Your task to perform on an android device: turn off priority inbox in the gmail app Image 0: 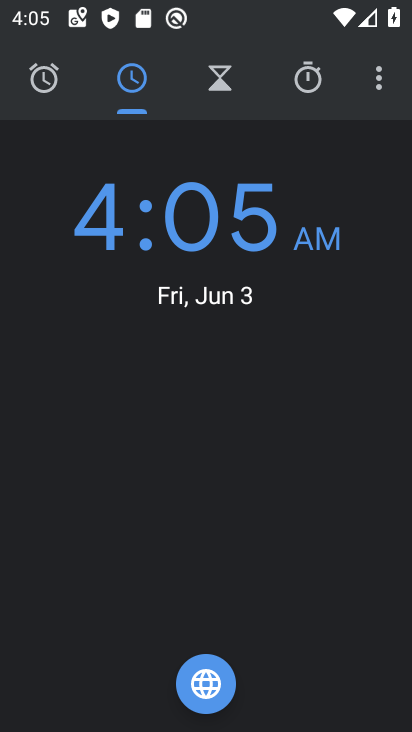
Step 0: press home button
Your task to perform on an android device: turn off priority inbox in the gmail app Image 1: 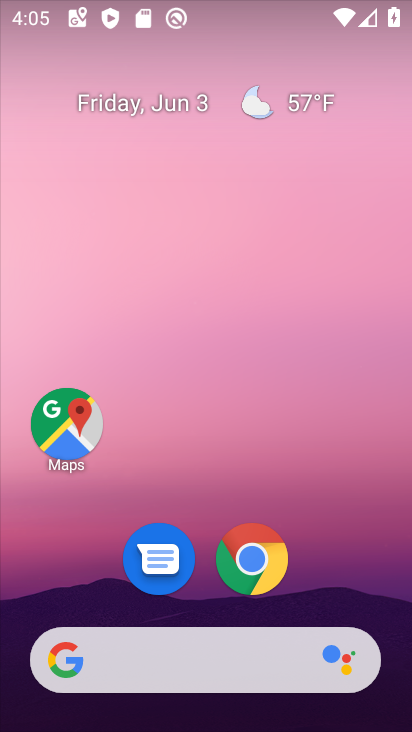
Step 1: drag from (313, 592) to (263, 95)
Your task to perform on an android device: turn off priority inbox in the gmail app Image 2: 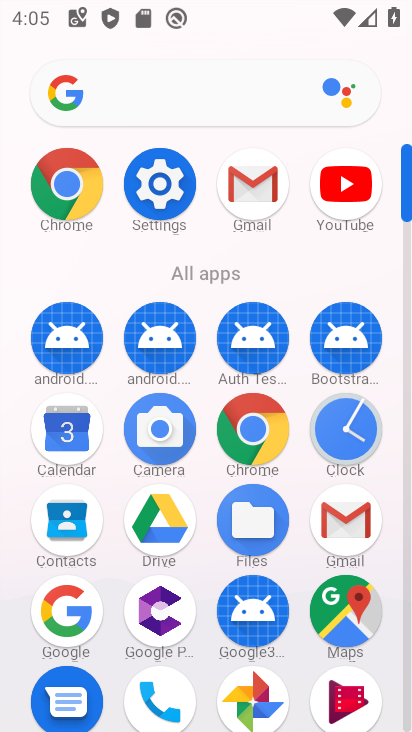
Step 2: click (339, 512)
Your task to perform on an android device: turn off priority inbox in the gmail app Image 3: 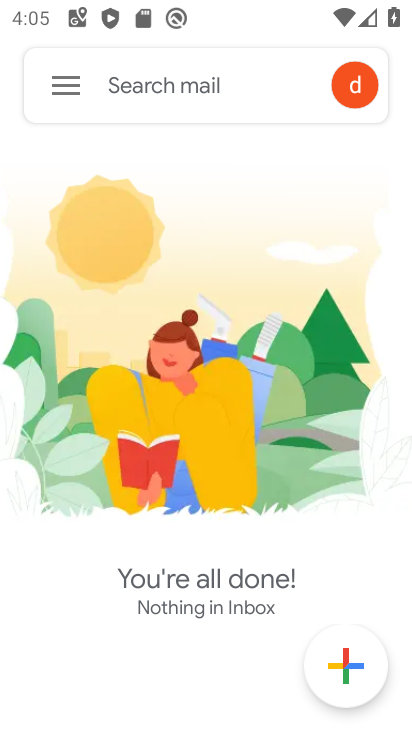
Step 3: click (61, 82)
Your task to perform on an android device: turn off priority inbox in the gmail app Image 4: 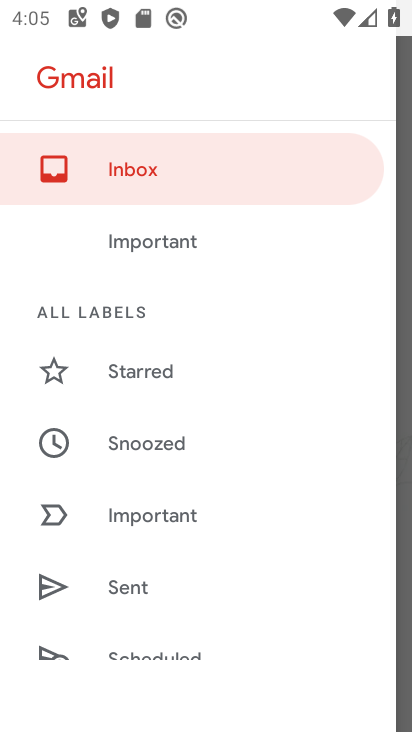
Step 4: drag from (259, 551) to (259, 258)
Your task to perform on an android device: turn off priority inbox in the gmail app Image 5: 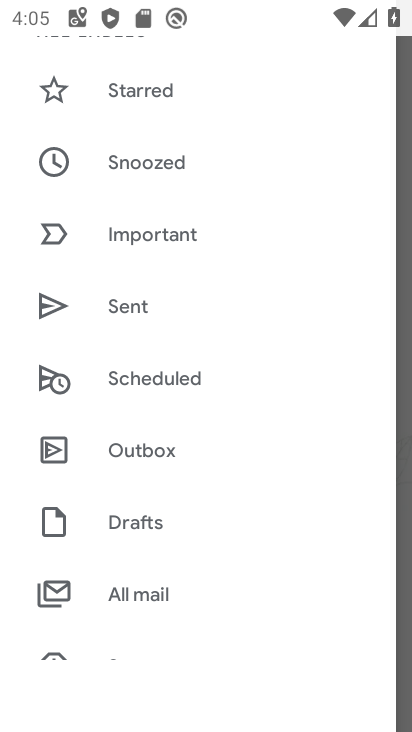
Step 5: drag from (234, 567) to (201, 214)
Your task to perform on an android device: turn off priority inbox in the gmail app Image 6: 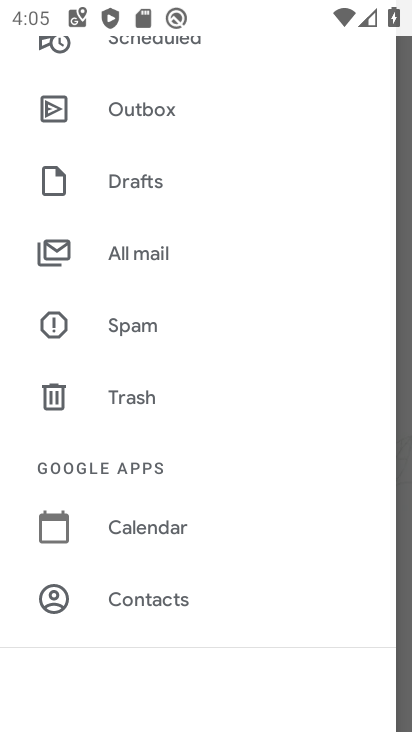
Step 6: drag from (243, 575) to (220, 246)
Your task to perform on an android device: turn off priority inbox in the gmail app Image 7: 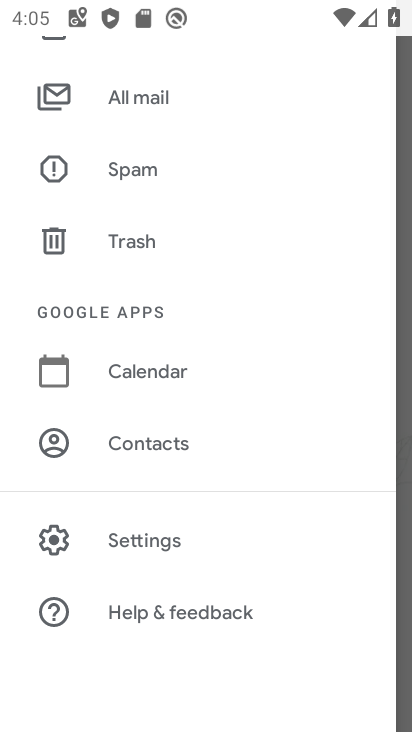
Step 7: click (128, 529)
Your task to perform on an android device: turn off priority inbox in the gmail app Image 8: 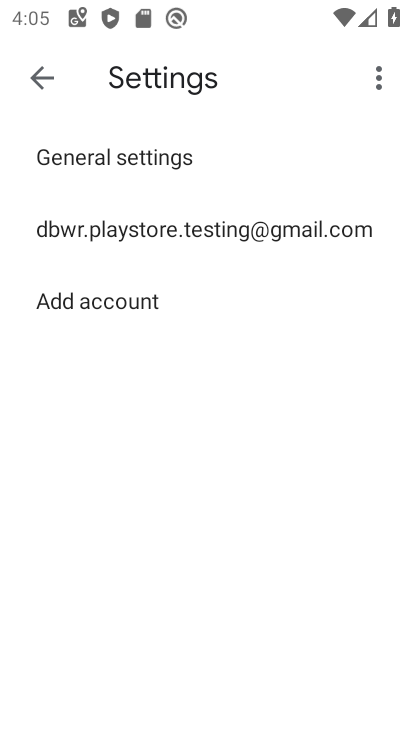
Step 8: click (113, 230)
Your task to perform on an android device: turn off priority inbox in the gmail app Image 9: 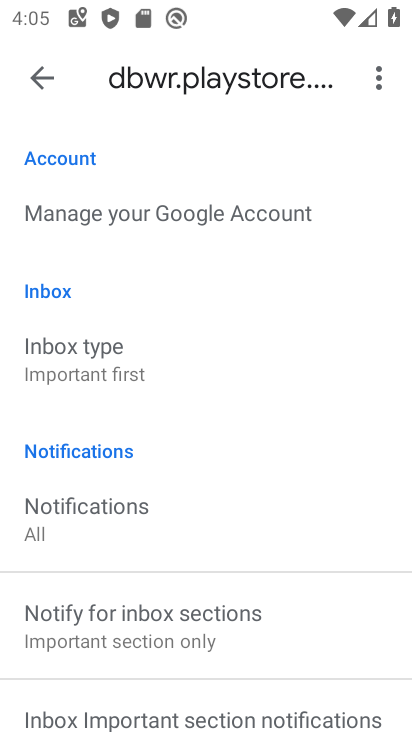
Step 9: click (94, 350)
Your task to perform on an android device: turn off priority inbox in the gmail app Image 10: 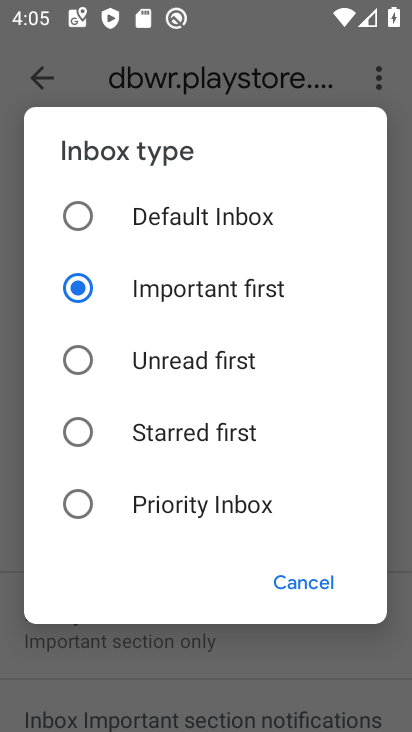
Step 10: task complete